Your task to perform on an android device: Go to privacy settings Image 0: 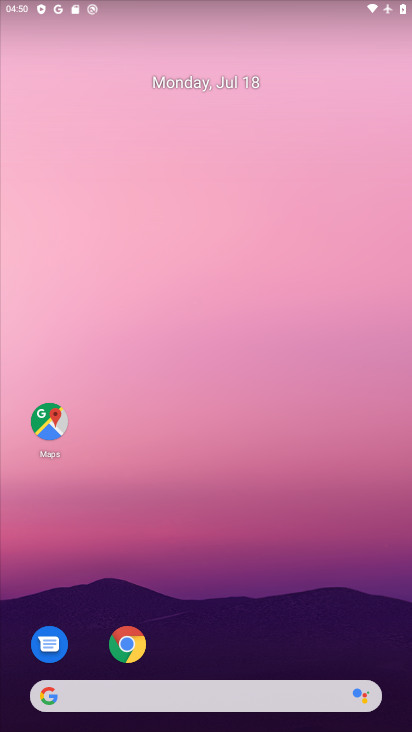
Step 0: press home button
Your task to perform on an android device: Go to privacy settings Image 1: 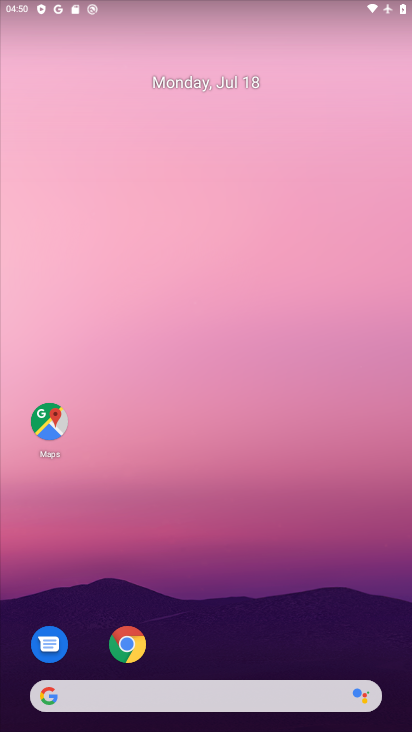
Step 1: drag from (208, 490) to (235, 126)
Your task to perform on an android device: Go to privacy settings Image 2: 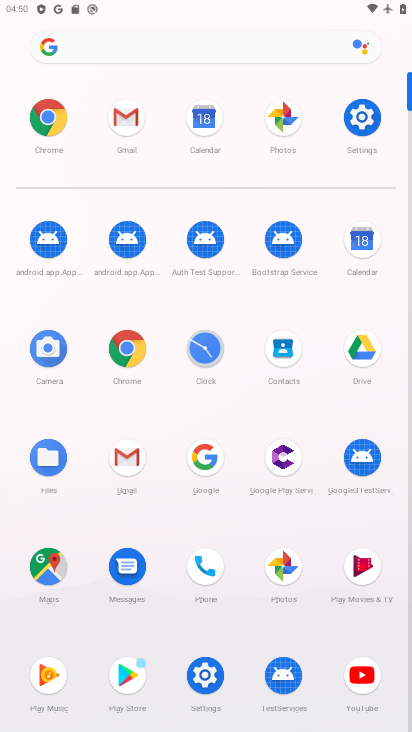
Step 2: click (367, 121)
Your task to perform on an android device: Go to privacy settings Image 3: 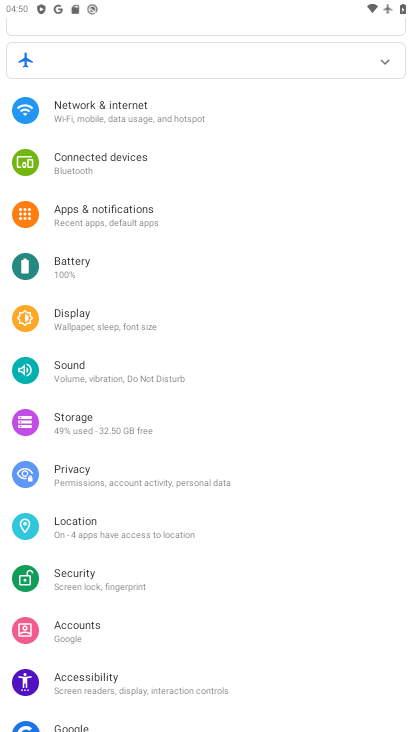
Step 3: drag from (262, 602) to (204, 198)
Your task to perform on an android device: Go to privacy settings Image 4: 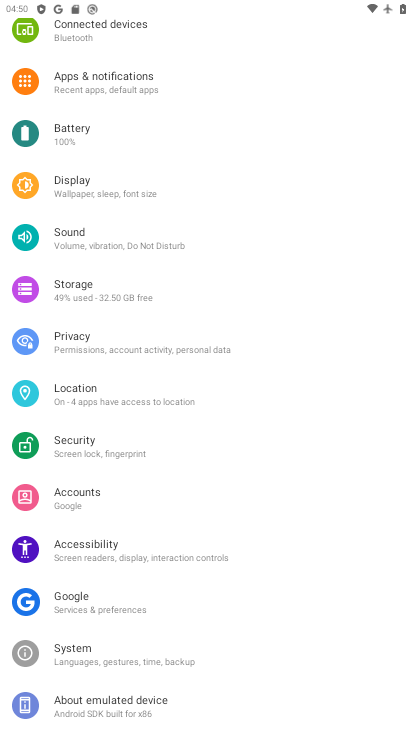
Step 4: click (87, 344)
Your task to perform on an android device: Go to privacy settings Image 5: 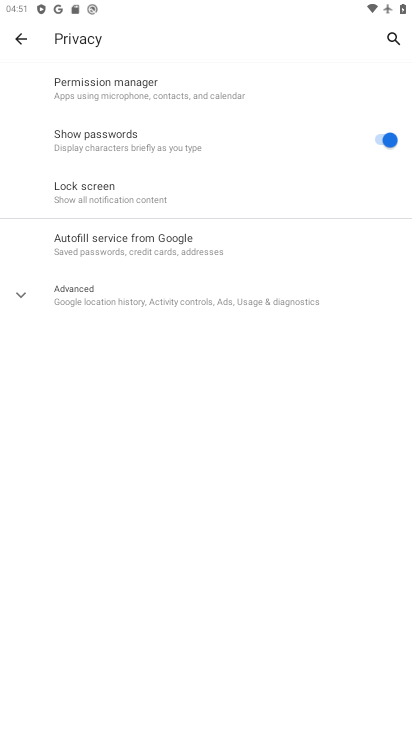
Step 5: task complete